Your task to perform on an android device: Go to Yahoo.com Image 0: 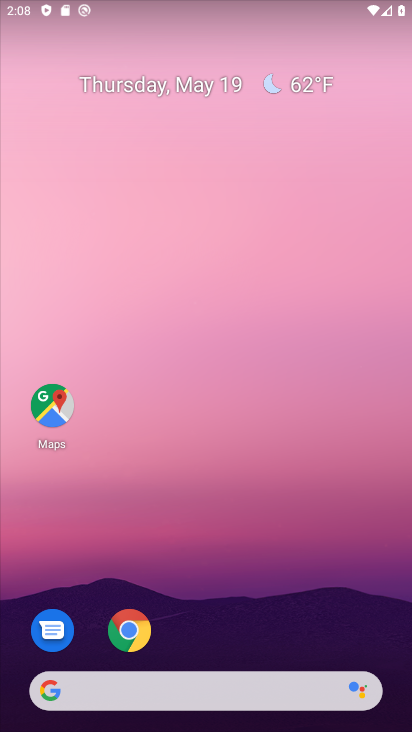
Step 0: drag from (397, 619) to (338, 253)
Your task to perform on an android device: Go to Yahoo.com Image 1: 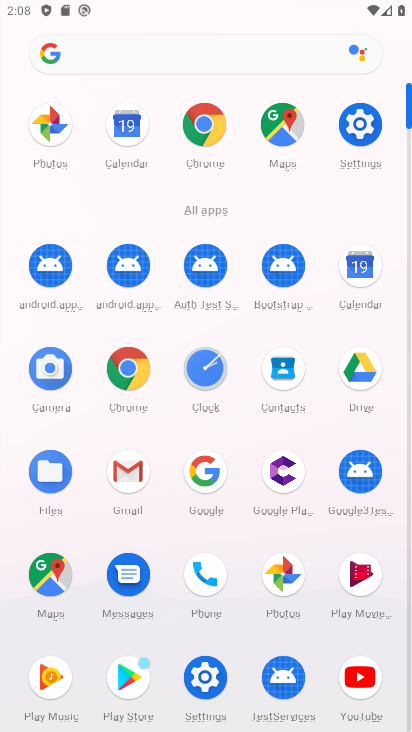
Step 1: click (112, 384)
Your task to perform on an android device: Go to Yahoo.com Image 2: 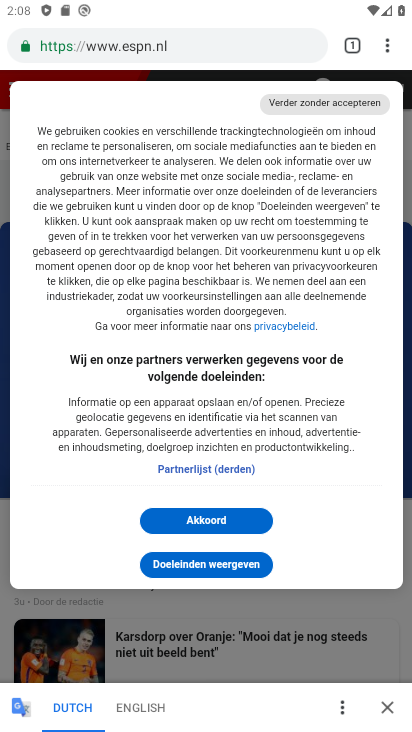
Step 2: click (189, 45)
Your task to perform on an android device: Go to Yahoo.com Image 3: 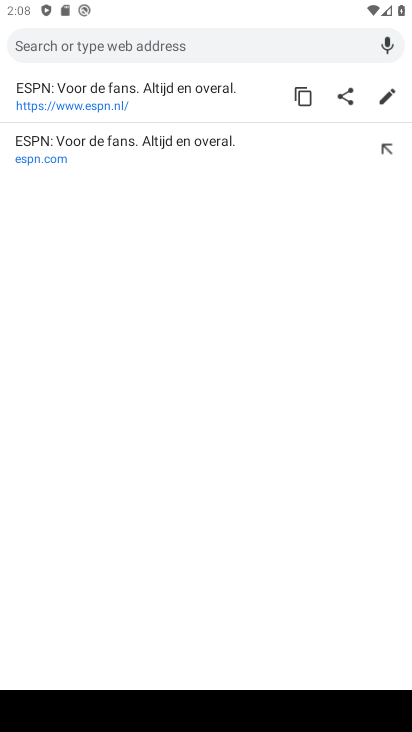
Step 3: type "yahoo.com"
Your task to perform on an android device: Go to Yahoo.com Image 4: 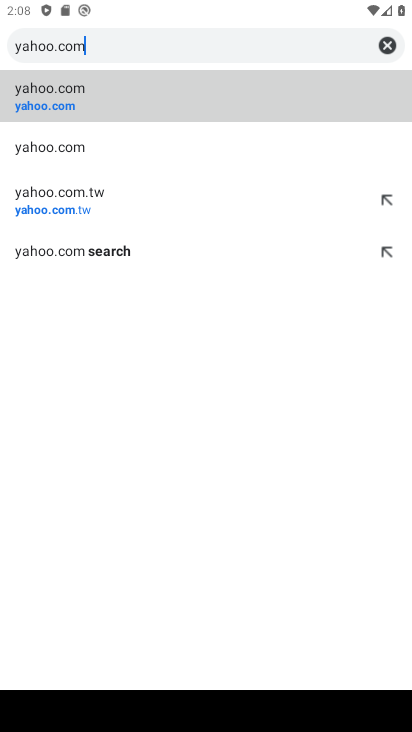
Step 4: click (179, 101)
Your task to perform on an android device: Go to Yahoo.com Image 5: 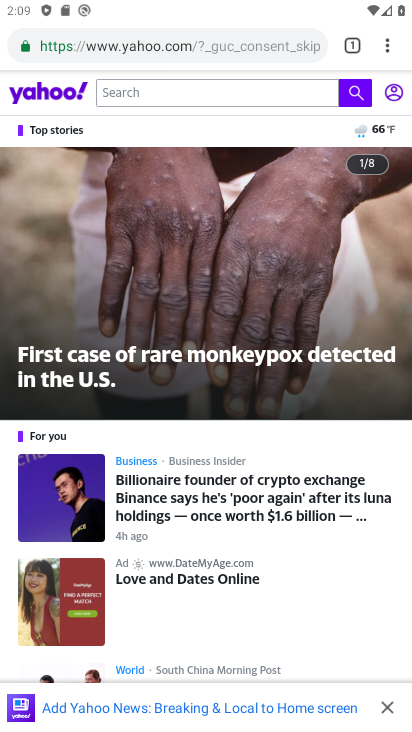
Step 5: task complete